Your task to perform on an android device: check out phone information Image 0: 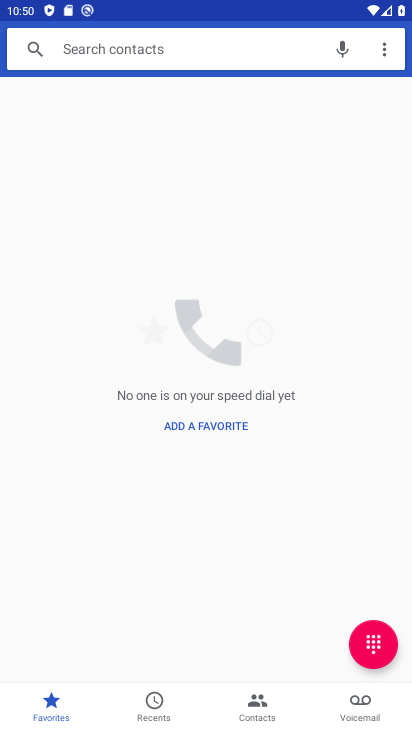
Step 0: press home button
Your task to perform on an android device: check out phone information Image 1: 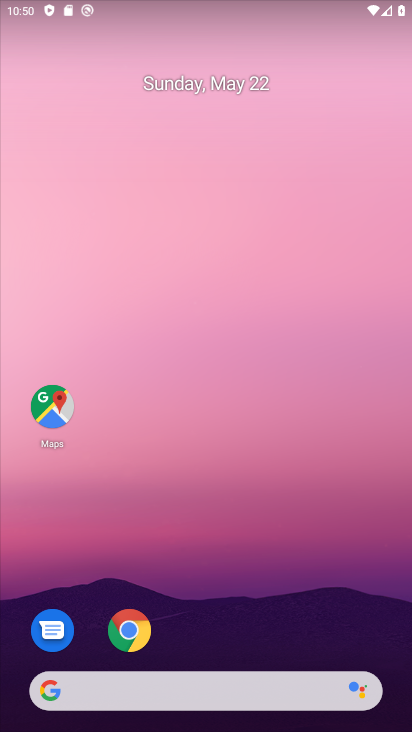
Step 1: drag from (355, 634) to (329, 158)
Your task to perform on an android device: check out phone information Image 2: 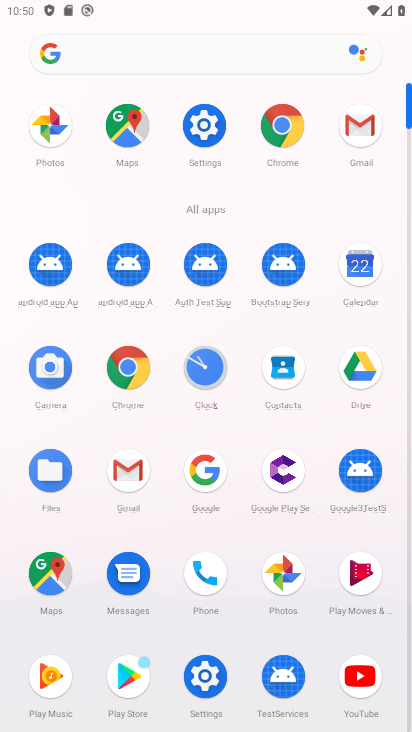
Step 2: drag from (309, 605) to (313, 354)
Your task to perform on an android device: check out phone information Image 3: 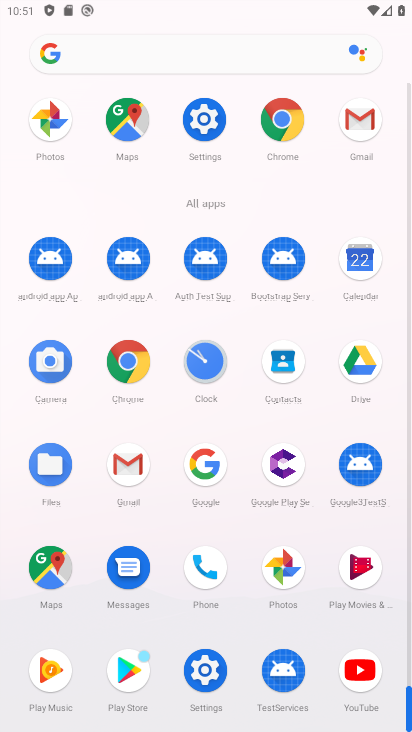
Step 3: click (208, 558)
Your task to perform on an android device: check out phone information Image 4: 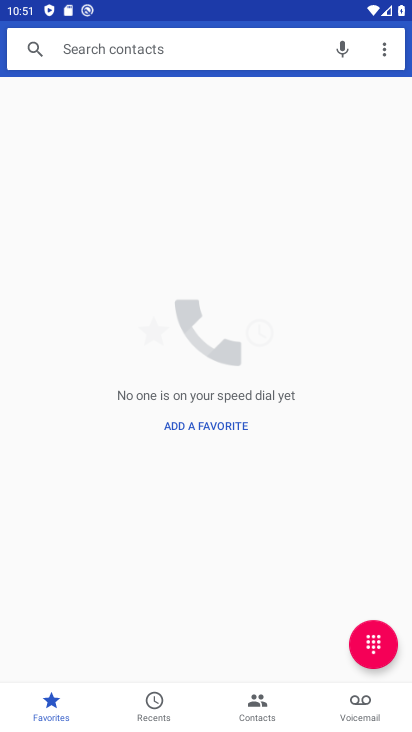
Step 4: click (155, 717)
Your task to perform on an android device: check out phone information Image 5: 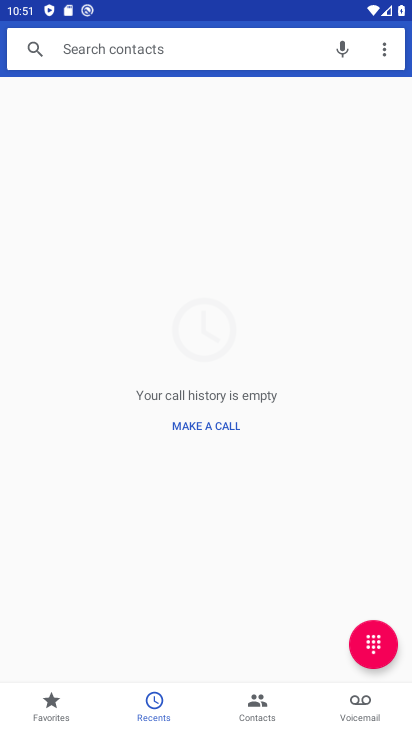
Step 5: task complete